Your task to perform on an android device: Go to Android settings Image 0: 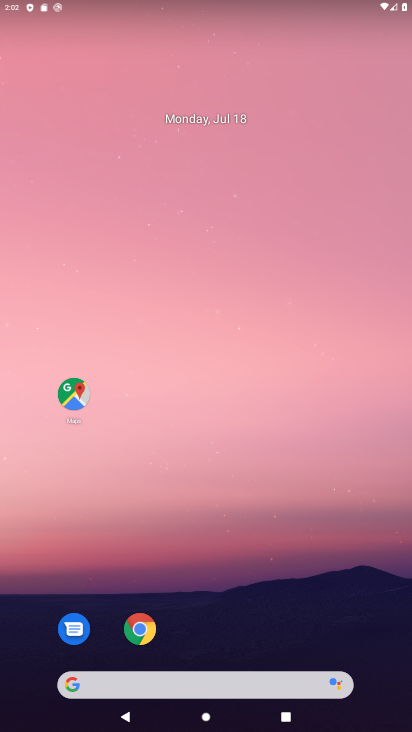
Step 0: drag from (205, 613) to (210, 176)
Your task to perform on an android device: Go to Android settings Image 1: 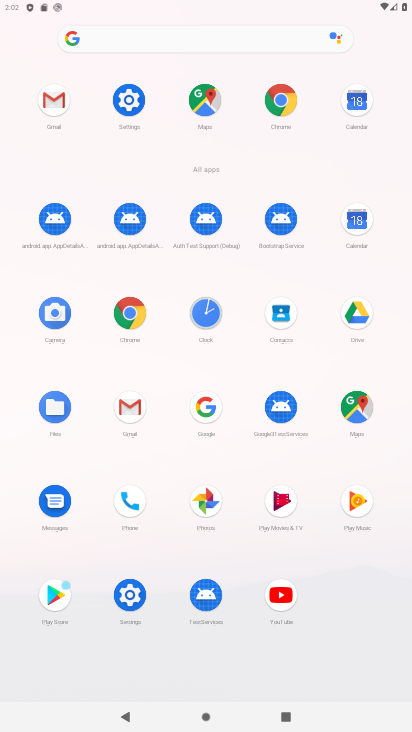
Step 1: click (119, 112)
Your task to perform on an android device: Go to Android settings Image 2: 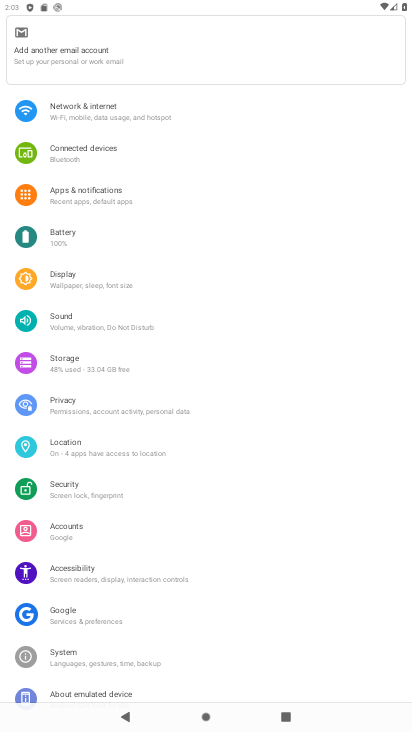
Step 2: task complete